Your task to perform on an android device: turn off sleep mode Image 0: 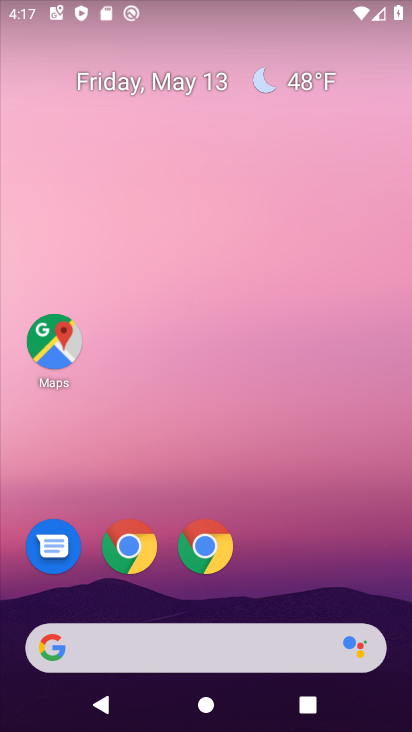
Step 0: drag from (332, 583) to (126, 30)
Your task to perform on an android device: turn off sleep mode Image 1: 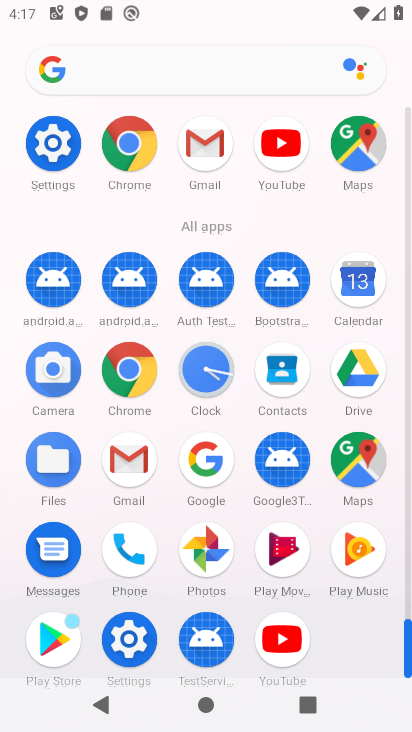
Step 1: click (41, 151)
Your task to perform on an android device: turn off sleep mode Image 2: 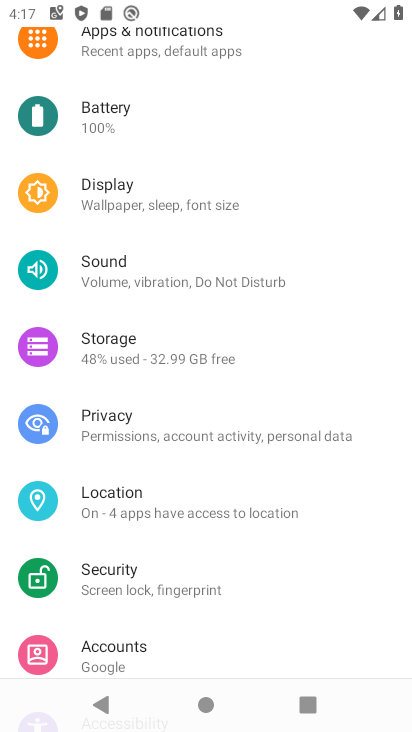
Step 2: drag from (137, 202) to (191, 589)
Your task to perform on an android device: turn off sleep mode Image 3: 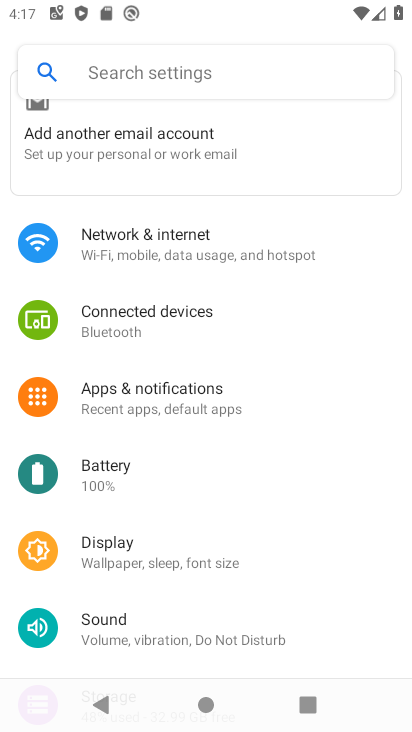
Step 3: click (118, 558)
Your task to perform on an android device: turn off sleep mode Image 4: 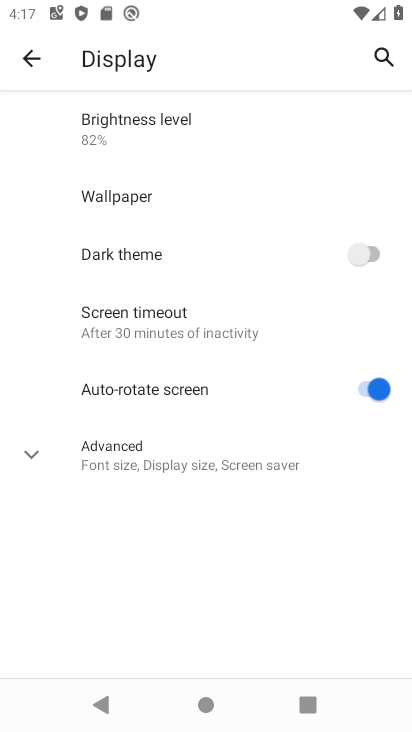
Step 4: task complete